Your task to perform on an android device: Search for pizza restaurants on Maps Image 0: 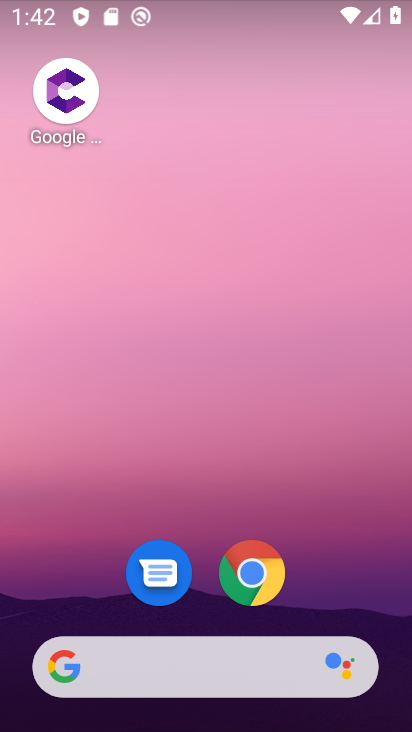
Step 0: drag from (136, 663) to (140, 128)
Your task to perform on an android device: Search for pizza restaurants on Maps Image 1: 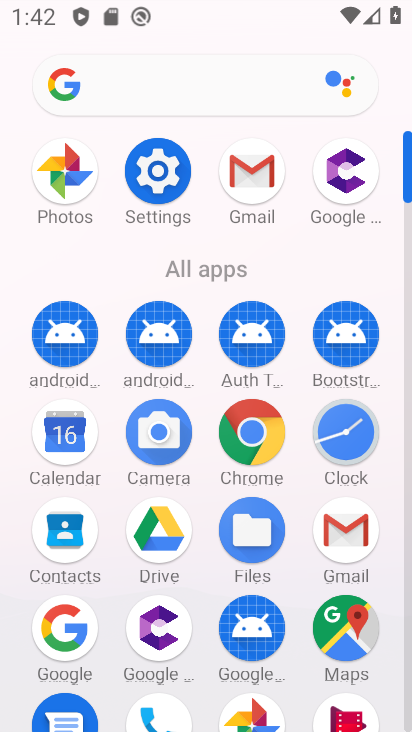
Step 1: click (347, 644)
Your task to perform on an android device: Search for pizza restaurants on Maps Image 2: 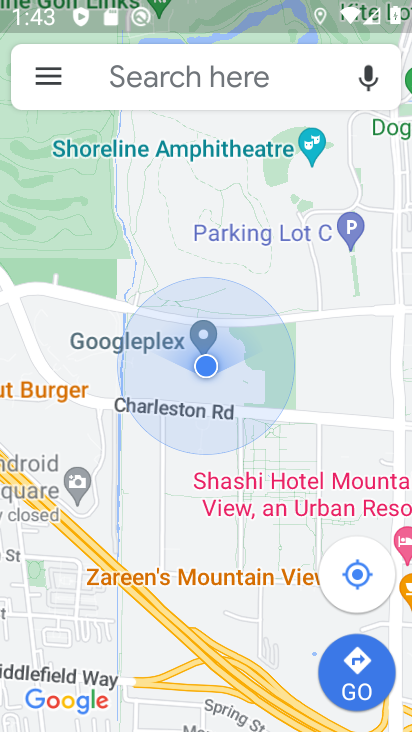
Step 2: click (158, 78)
Your task to perform on an android device: Search for pizza restaurants on Maps Image 3: 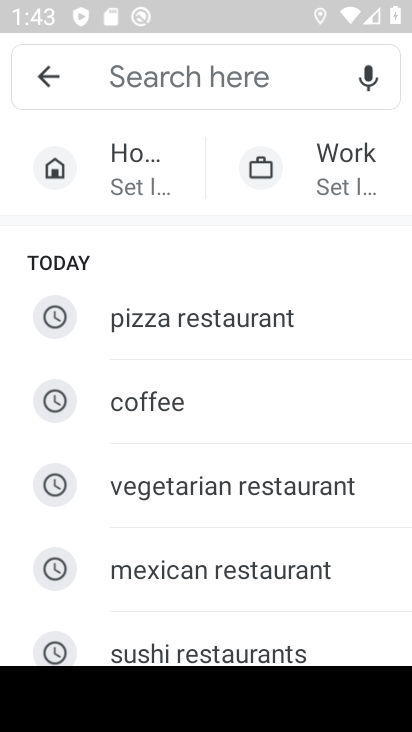
Step 3: click (165, 329)
Your task to perform on an android device: Search for pizza restaurants on Maps Image 4: 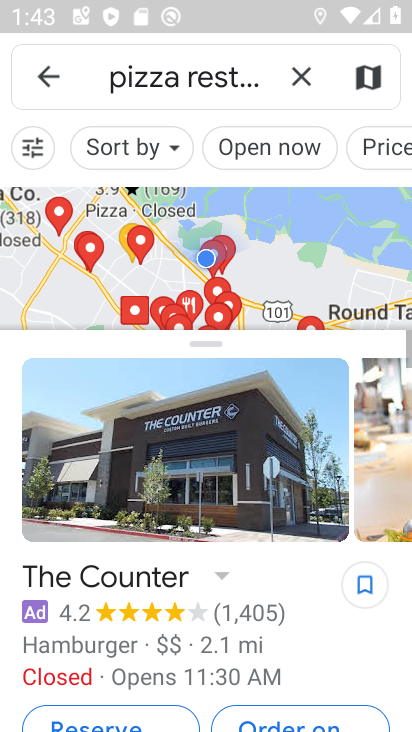
Step 4: task complete